Your task to perform on an android device: Go to notification settings Image 0: 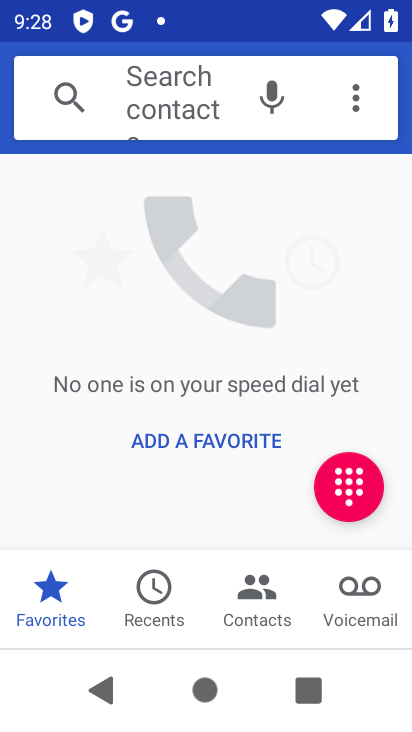
Step 0: press home button
Your task to perform on an android device: Go to notification settings Image 1: 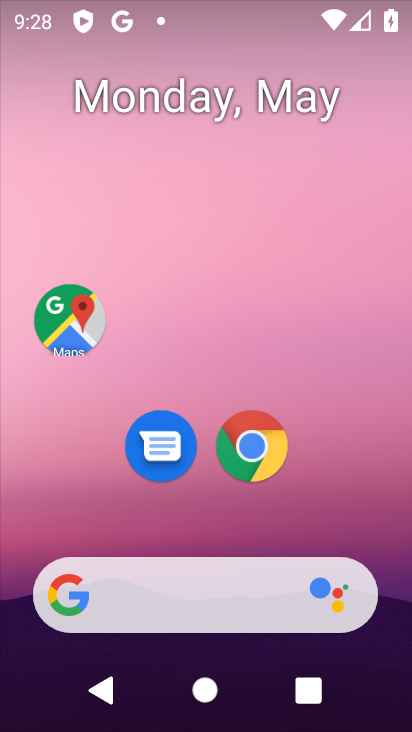
Step 1: drag from (94, 541) to (201, 43)
Your task to perform on an android device: Go to notification settings Image 2: 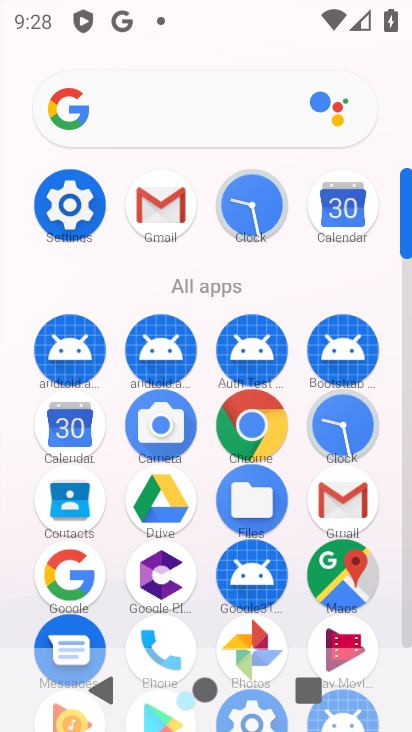
Step 2: drag from (161, 545) to (249, 297)
Your task to perform on an android device: Go to notification settings Image 3: 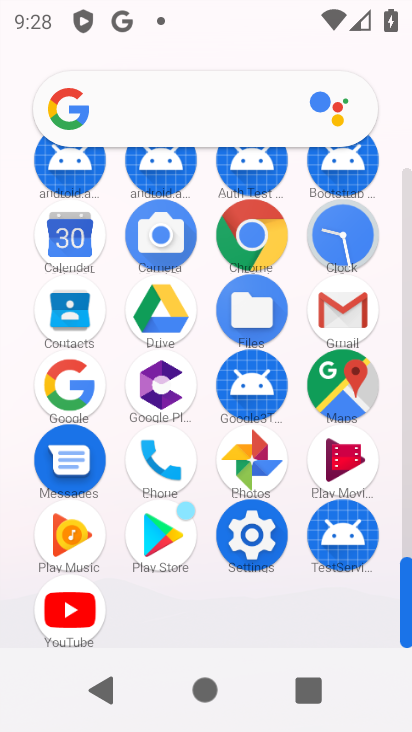
Step 3: click (248, 544)
Your task to perform on an android device: Go to notification settings Image 4: 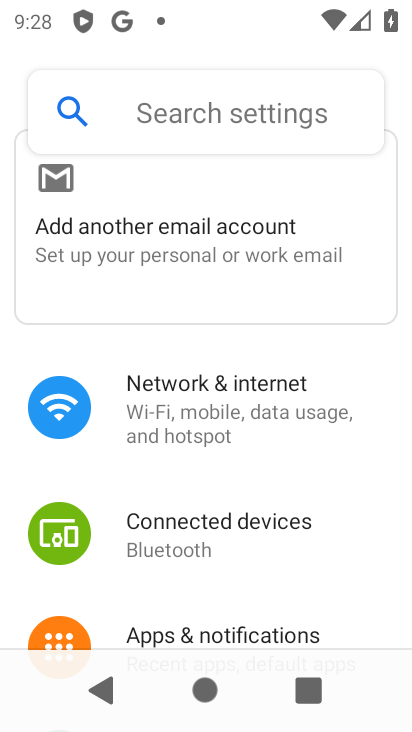
Step 4: drag from (111, 596) to (168, 357)
Your task to perform on an android device: Go to notification settings Image 5: 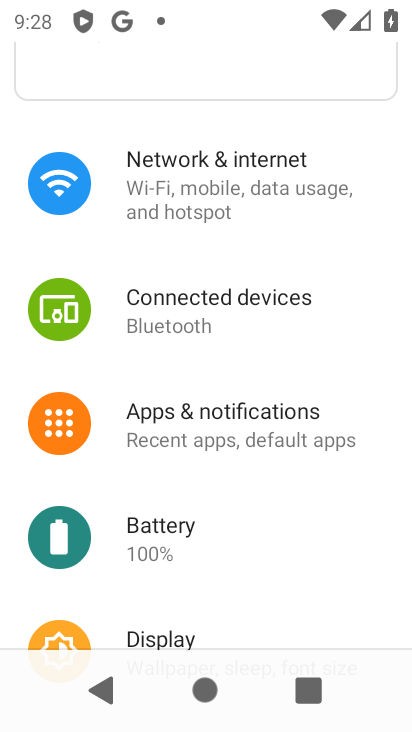
Step 5: click (196, 436)
Your task to perform on an android device: Go to notification settings Image 6: 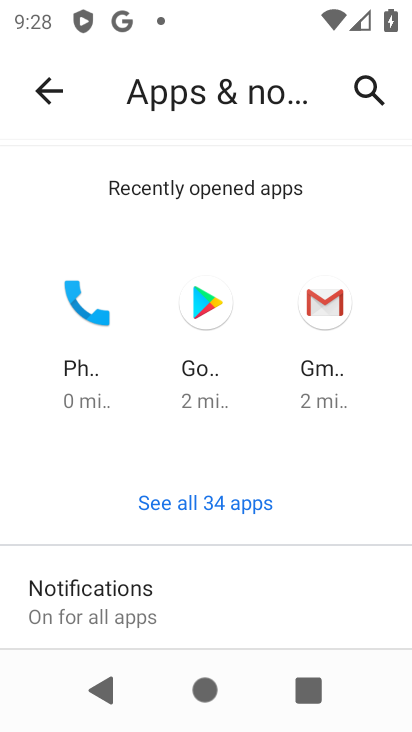
Step 6: click (170, 592)
Your task to perform on an android device: Go to notification settings Image 7: 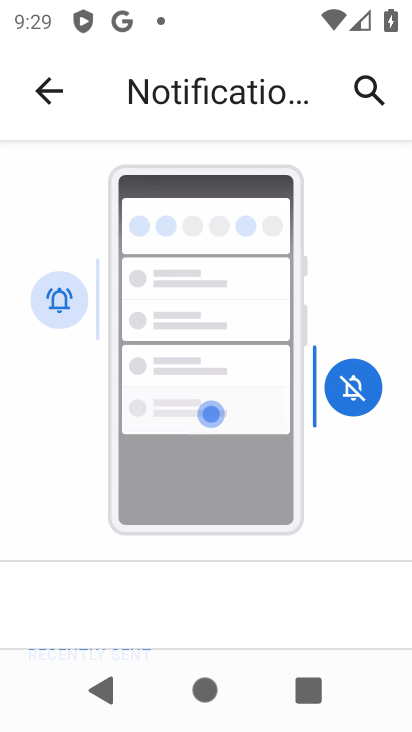
Step 7: task complete